Your task to perform on an android device: Go to Amazon Image 0: 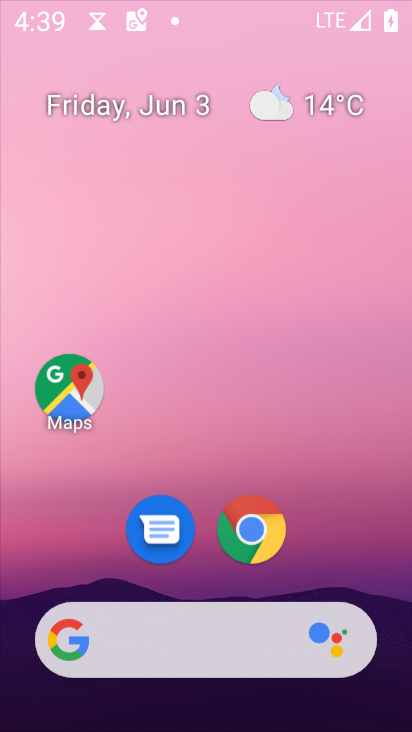
Step 0: click (258, 13)
Your task to perform on an android device: Go to Amazon Image 1: 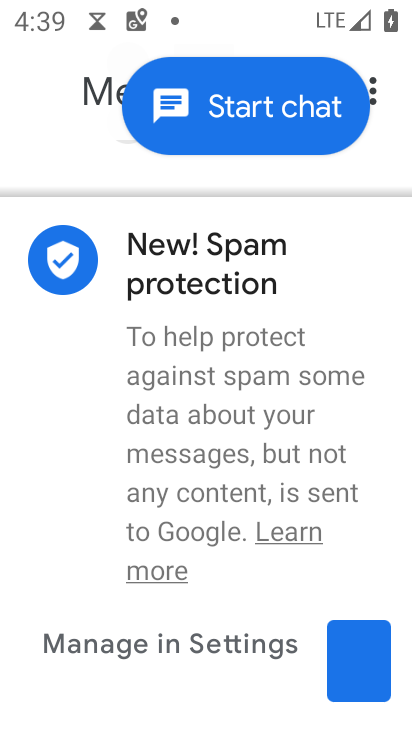
Step 1: press home button
Your task to perform on an android device: Go to Amazon Image 2: 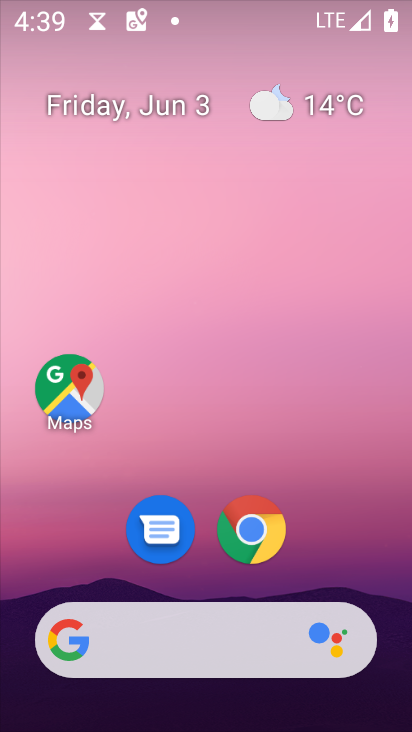
Step 2: drag from (347, 516) to (362, 59)
Your task to perform on an android device: Go to Amazon Image 3: 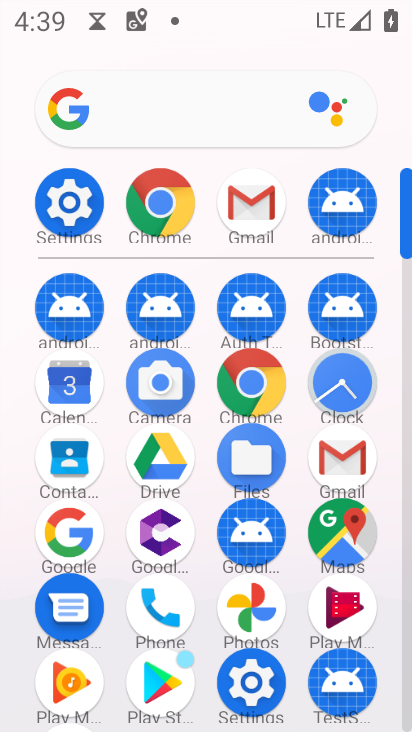
Step 3: click (176, 229)
Your task to perform on an android device: Go to Amazon Image 4: 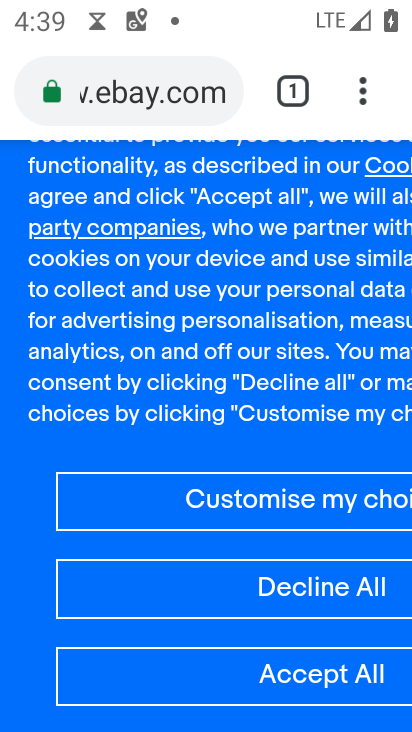
Step 4: click (145, 99)
Your task to perform on an android device: Go to Amazon Image 5: 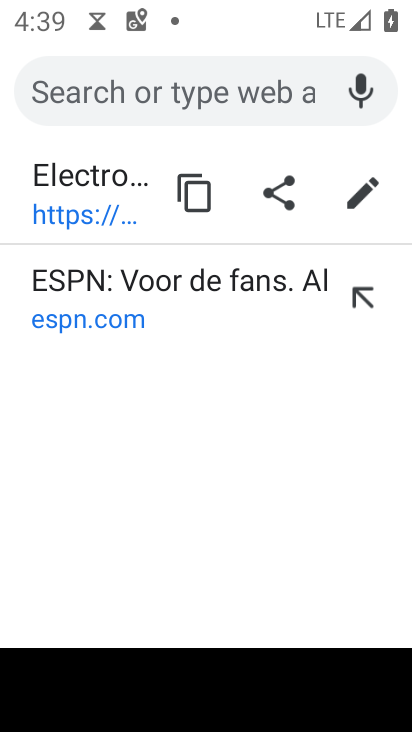
Step 5: type "amazon"
Your task to perform on an android device: Go to Amazon Image 6: 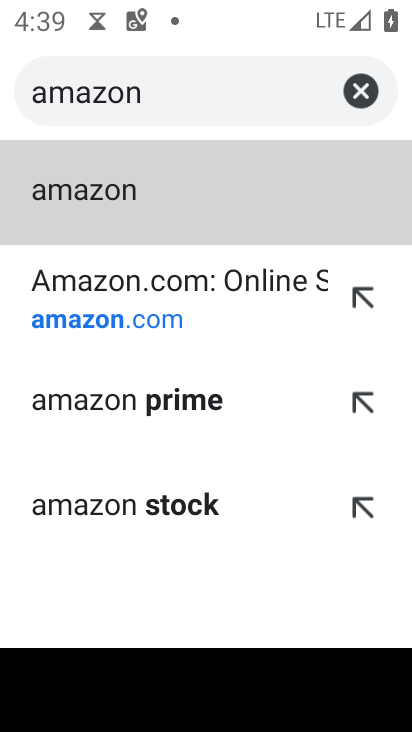
Step 6: click (62, 299)
Your task to perform on an android device: Go to Amazon Image 7: 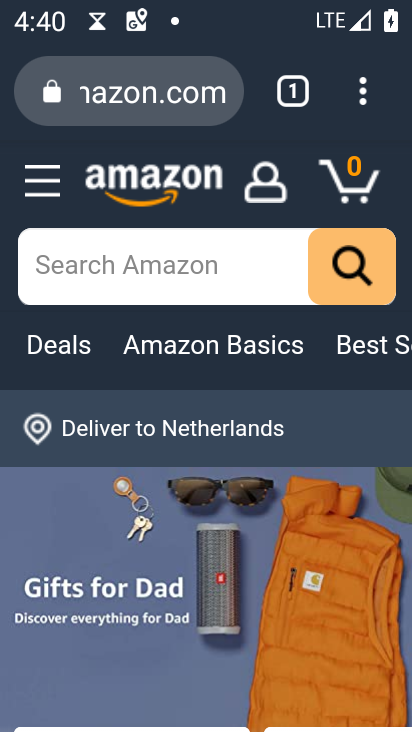
Step 7: task complete